Your task to perform on an android device: Open eBay Image 0: 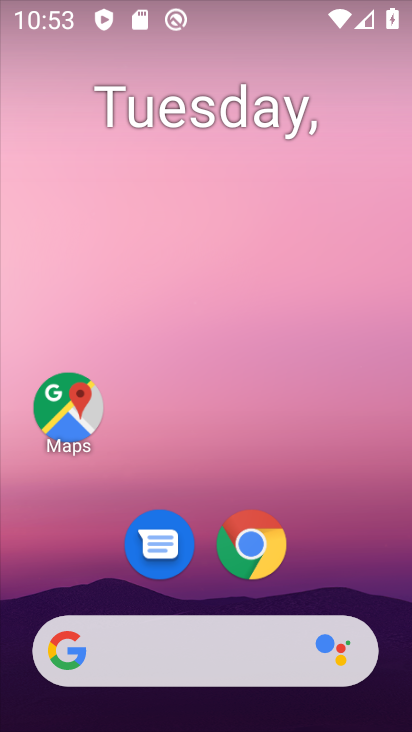
Step 0: drag from (398, 596) to (336, 67)
Your task to perform on an android device: Open eBay Image 1: 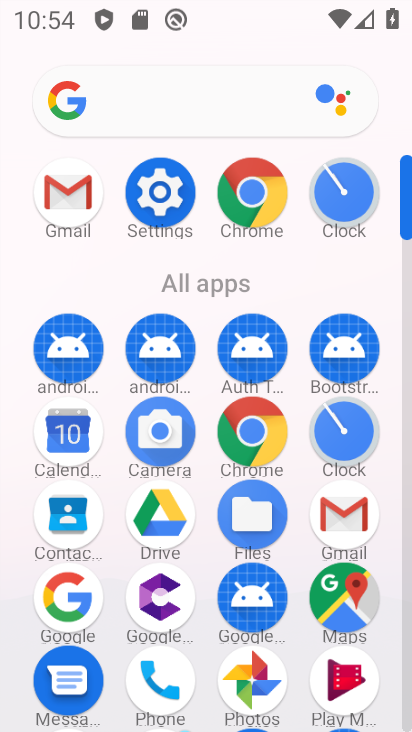
Step 1: click (247, 181)
Your task to perform on an android device: Open eBay Image 2: 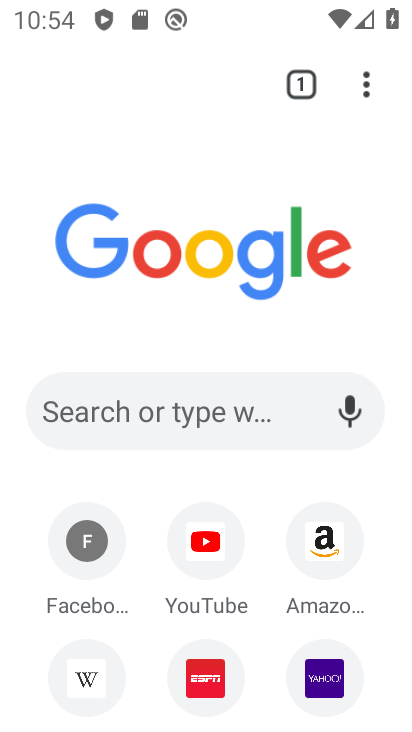
Step 2: click (181, 340)
Your task to perform on an android device: Open eBay Image 3: 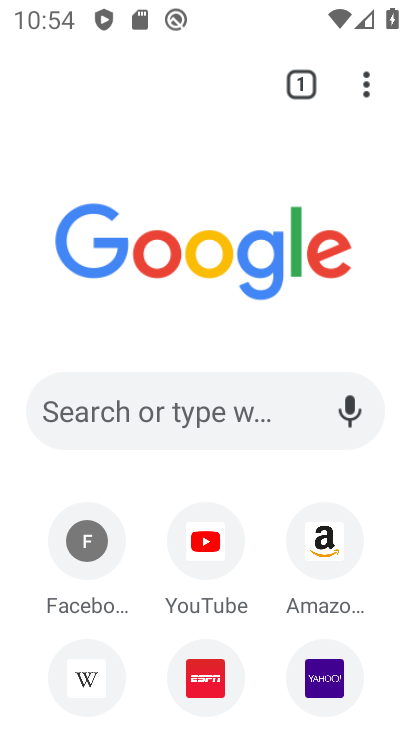
Step 3: click (141, 405)
Your task to perform on an android device: Open eBay Image 4: 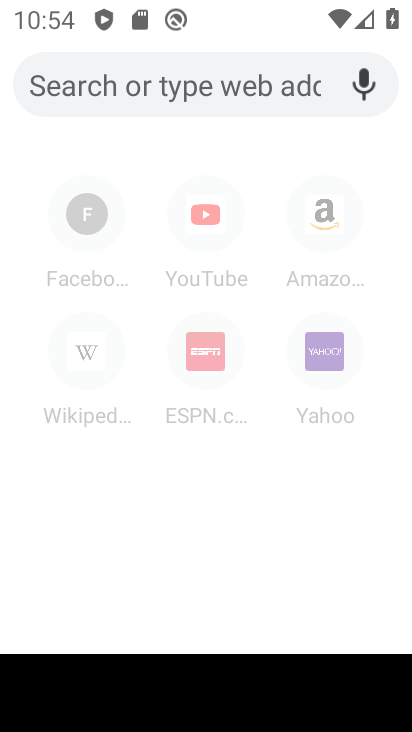
Step 4: type "ebay"
Your task to perform on an android device: Open eBay Image 5: 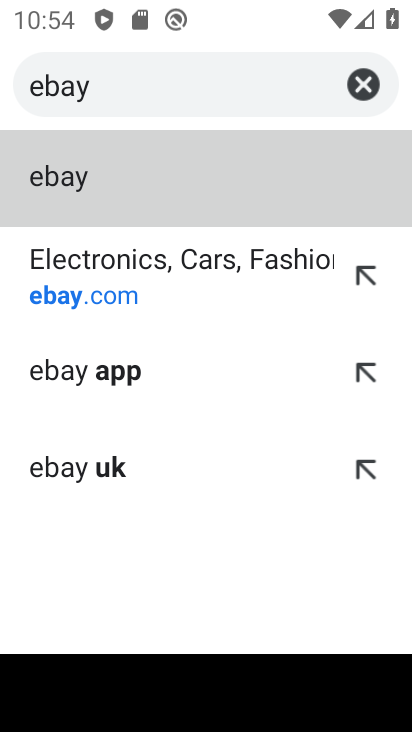
Step 5: click (190, 164)
Your task to perform on an android device: Open eBay Image 6: 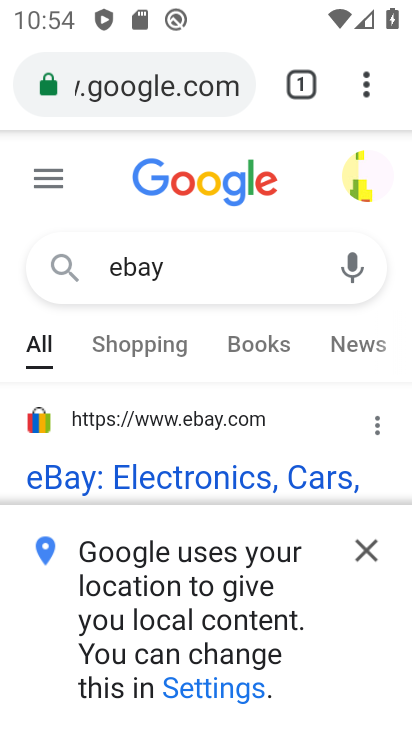
Step 6: click (203, 470)
Your task to perform on an android device: Open eBay Image 7: 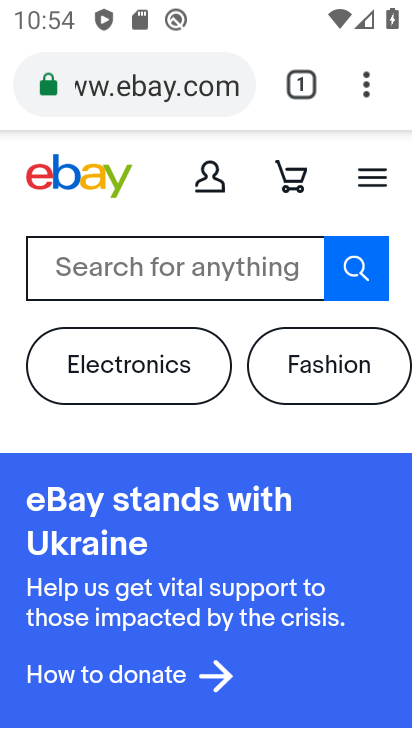
Step 7: task complete